Your task to perform on an android device: Is it going to rain this weekend? Image 0: 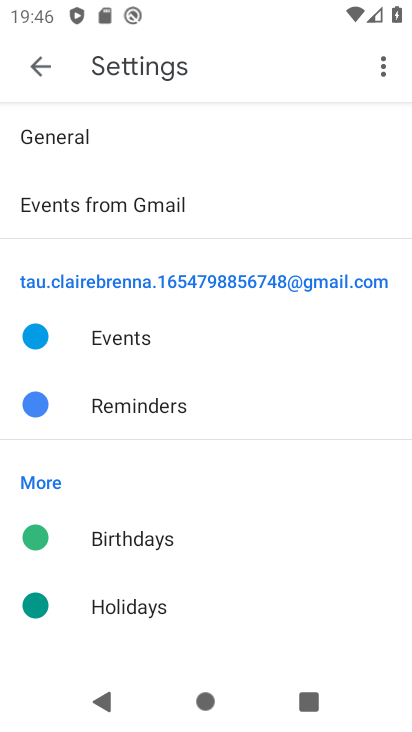
Step 0: press home button
Your task to perform on an android device: Is it going to rain this weekend? Image 1: 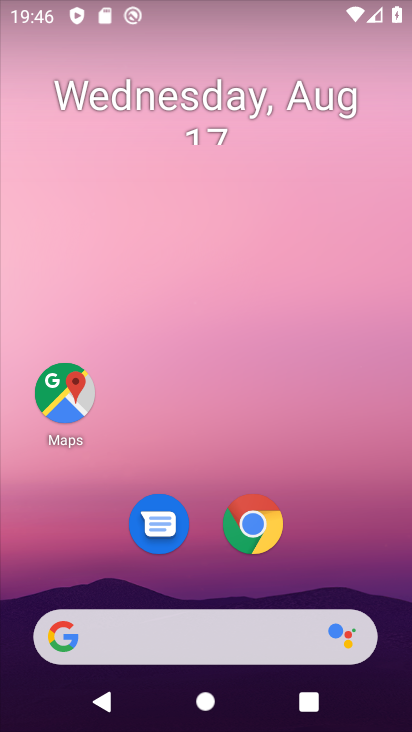
Step 1: click (193, 651)
Your task to perform on an android device: Is it going to rain this weekend? Image 2: 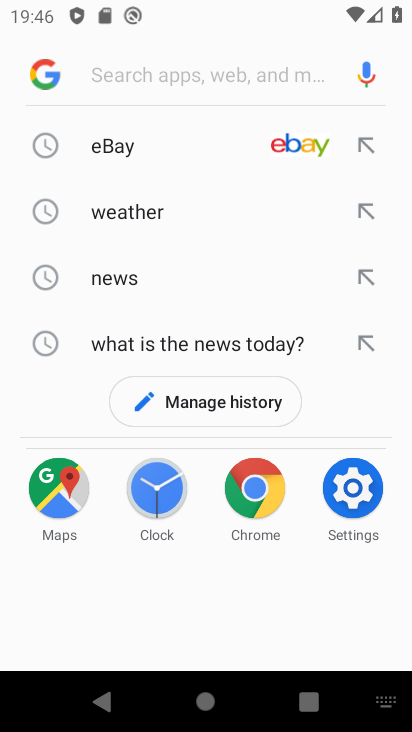
Step 2: click (182, 212)
Your task to perform on an android device: Is it going to rain this weekend? Image 3: 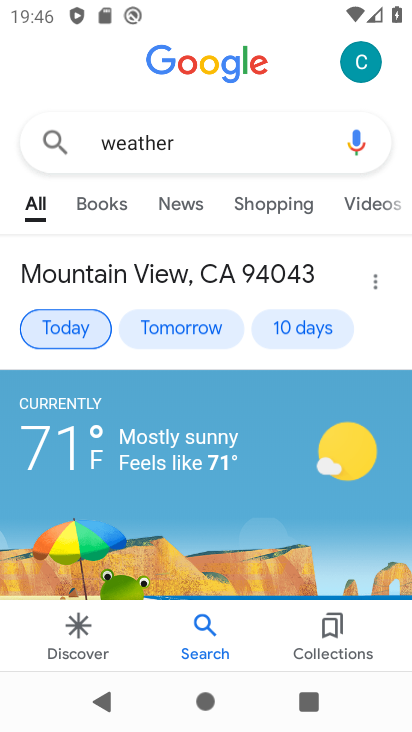
Step 3: click (301, 330)
Your task to perform on an android device: Is it going to rain this weekend? Image 4: 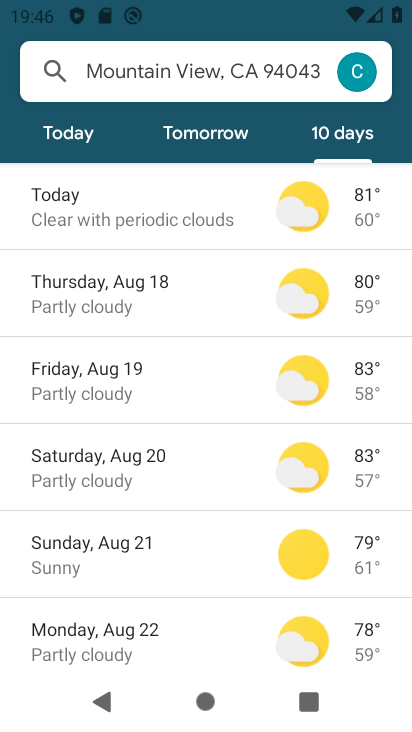
Step 4: click (194, 455)
Your task to perform on an android device: Is it going to rain this weekend? Image 5: 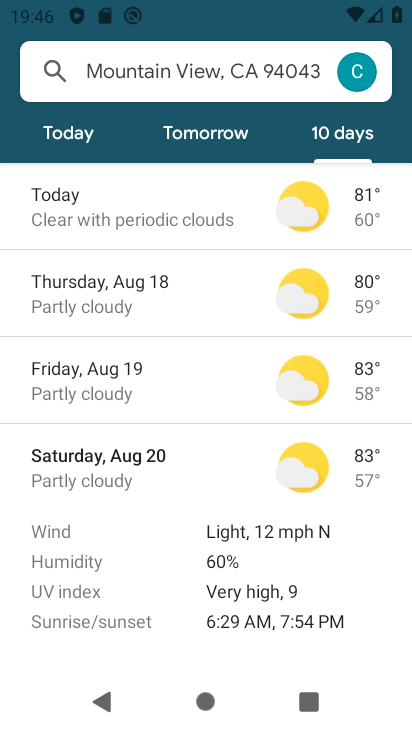
Step 5: task complete